Your task to perform on an android device: turn off wifi Image 0: 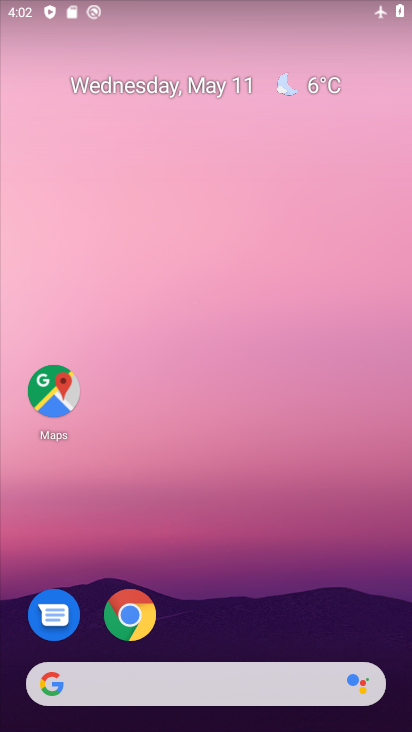
Step 0: drag from (320, 7) to (313, 535)
Your task to perform on an android device: turn off wifi Image 1: 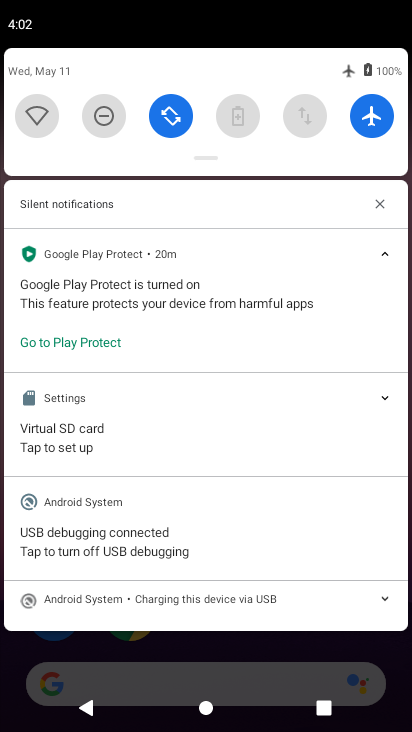
Step 1: task complete